Your task to perform on an android device: Open Google Maps Image 0: 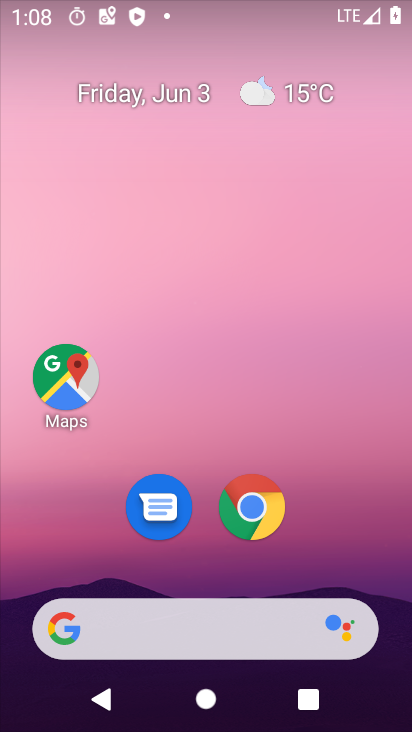
Step 0: drag from (386, 614) to (254, 22)
Your task to perform on an android device: Open Google Maps Image 1: 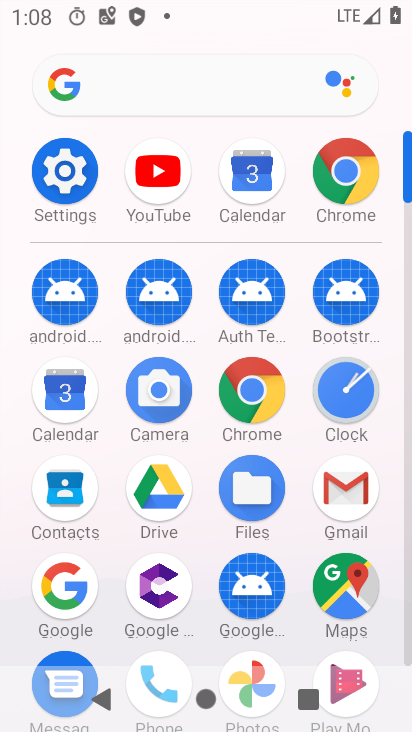
Step 1: click (339, 587)
Your task to perform on an android device: Open Google Maps Image 2: 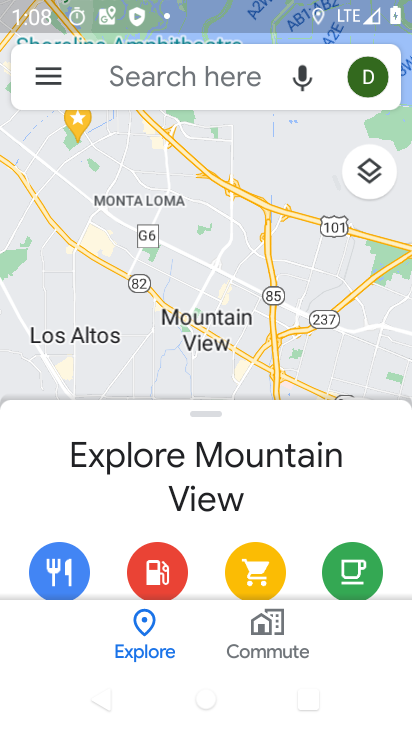
Step 2: task complete